Your task to perform on an android device: set an alarm Image 0: 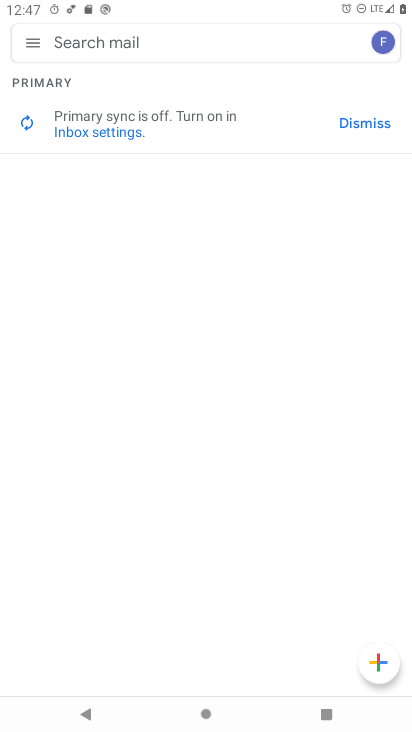
Step 0: press home button
Your task to perform on an android device: set an alarm Image 1: 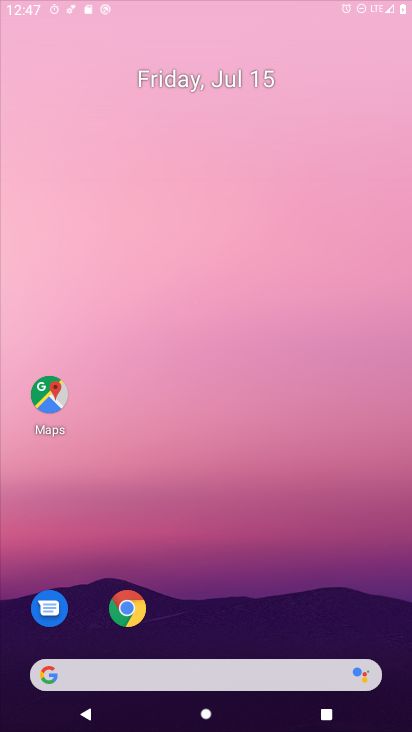
Step 1: drag from (258, 624) to (238, 110)
Your task to perform on an android device: set an alarm Image 2: 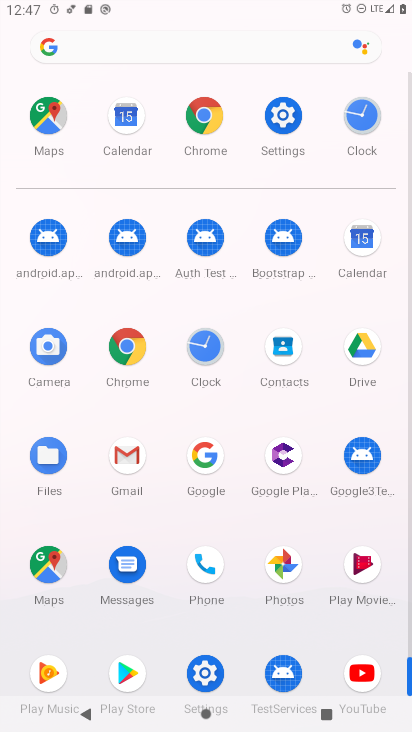
Step 2: click (192, 354)
Your task to perform on an android device: set an alarm Image 3: 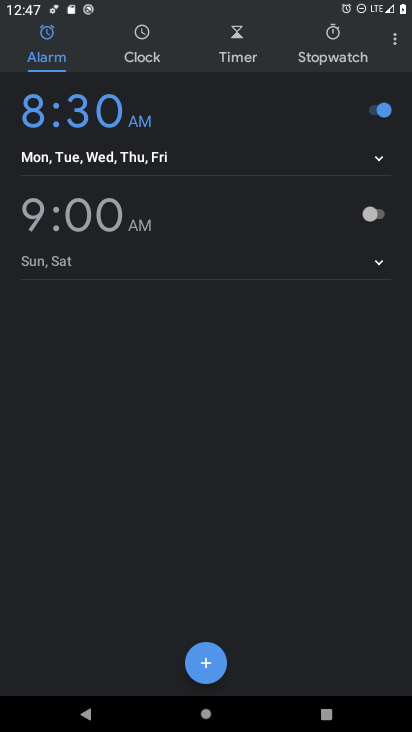
Step 3: task complete